Your task to perform on an android device: Check the weather Image 0: 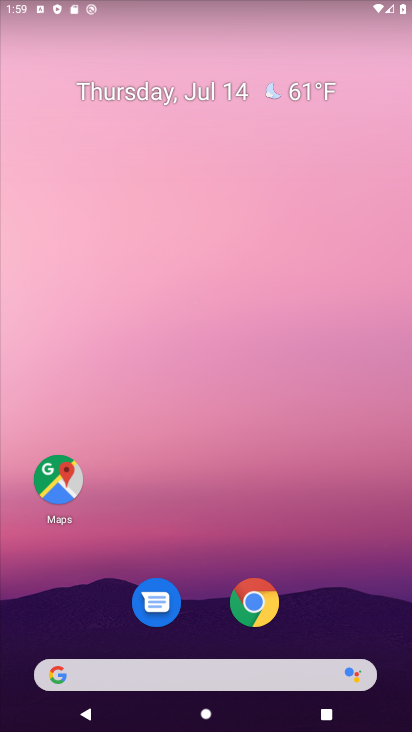
Step 0: drag from (197, 644) to (220, 177)
Your task to perform on an android device: Check the weather Image 1: 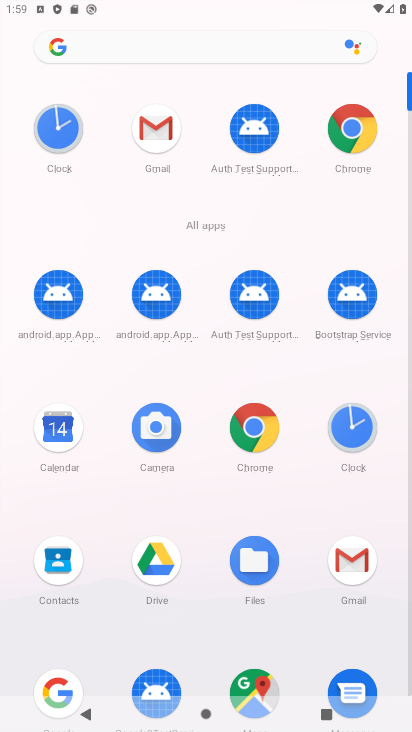
Step 1: drag from (198, 636) to (193, 267)
Your task to perform on an android device: Check the weather Image 2: 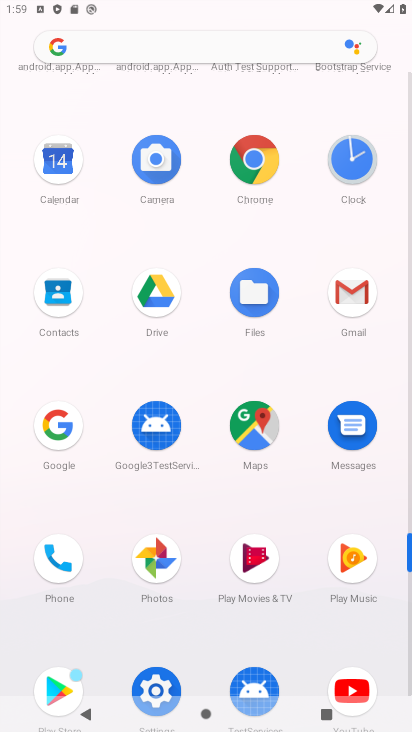
Step 2: drag from (108, 681) to (107, 337)
Your task to perform on an android device: Check the weather Image 3: 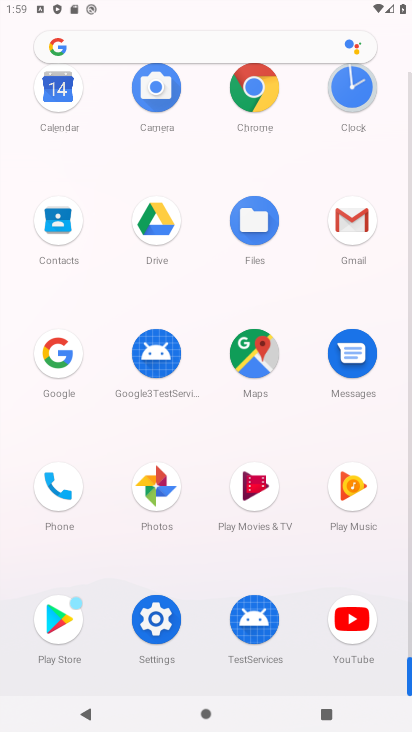
Step 3: click (67, 354)
Your task to perform on an android device: Check the weather Image 4: 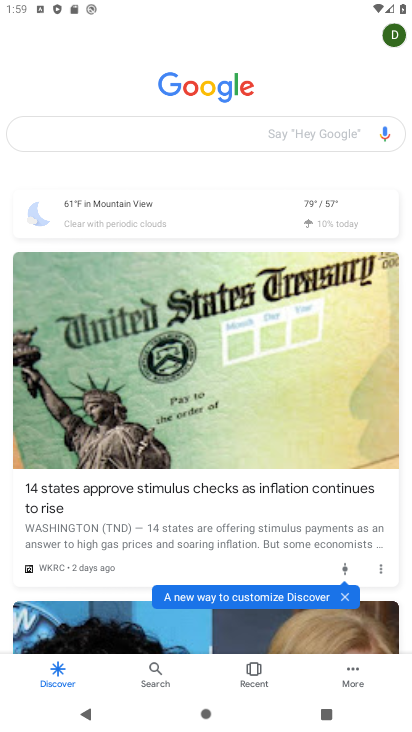
Step 4: click (111, 135)
Your task to perform on an android device: Check the weather Image 5: 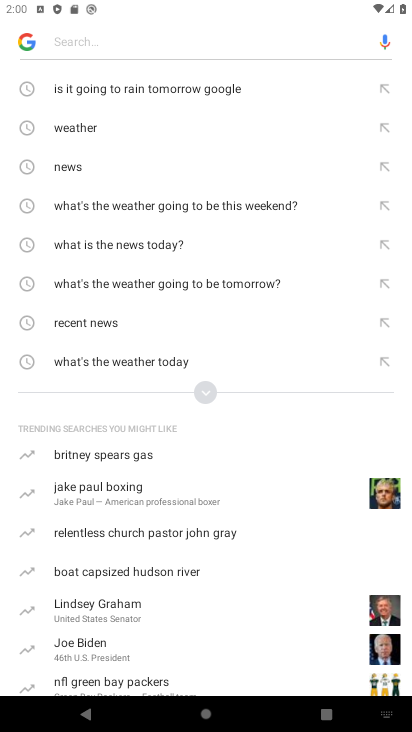
Step 5: click (61, 133)
Your task to perform on an android device: Check the weather Image 6: 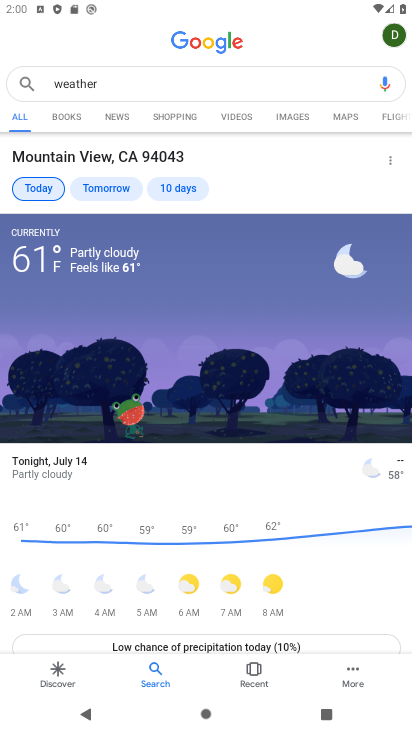
Step 6: task complete